Your task to perform on an android device: remove spam from my inbox in the gmail app Image 0: 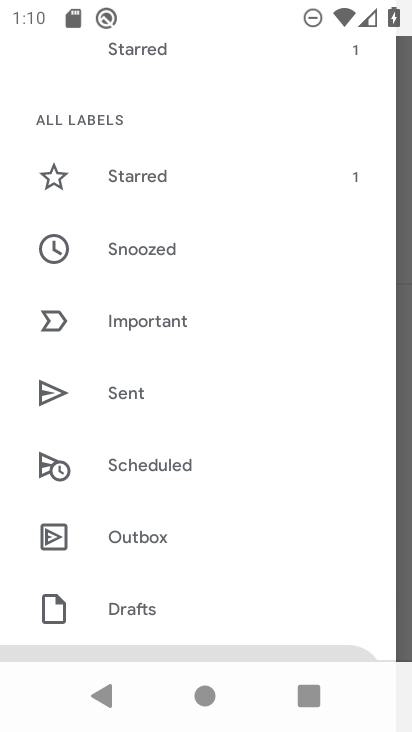
Step 0: click (170, 486)
Your task to perform on an android device: remove spam from my inbox in the gmail app Image 1: 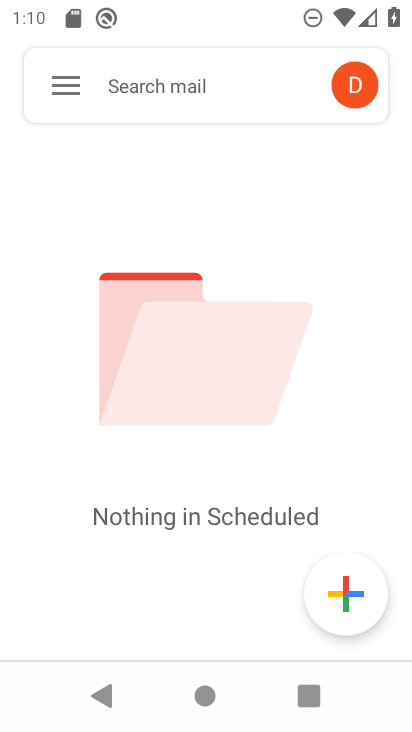
Step 1: click (55, 74)
Your task to perform on an android device: remove spam from my inbox in the gmail app Image 2: 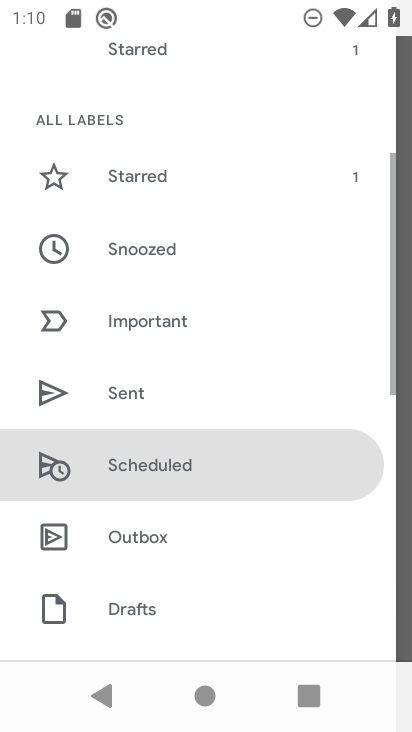
Step 2: drag from (182, 464) to (190, 219)
Your task to perform on an android device: remove spam from my inbox in the gmail app Image 3: 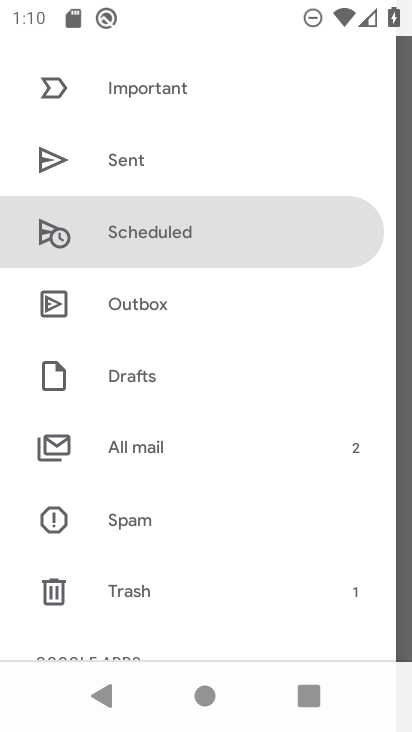
Step 3: click (216, 526)
Your task to perform on an android device: remove spam from my inbox in the gmail app Image 4: 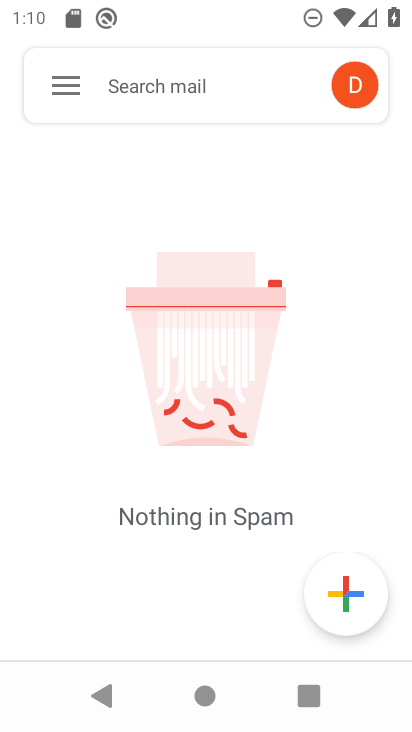
Step 4: task complete